Your task to perform on an android device: refresh tabs in the chrome app Image 0: 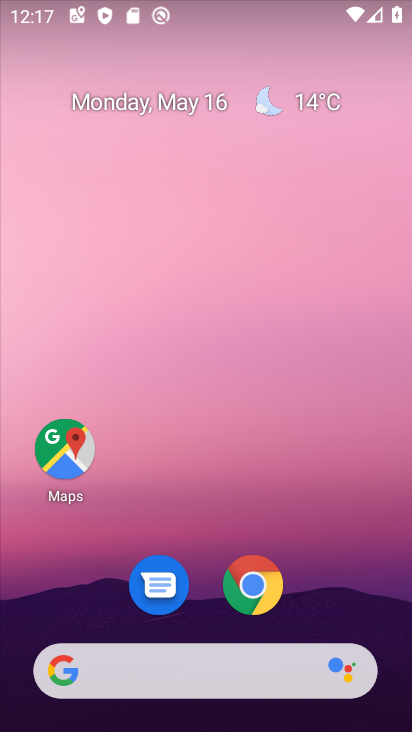
Step 0: click (261, 585)
Your task to perform on an android device: refresh tabs in the chrome app Image 1: 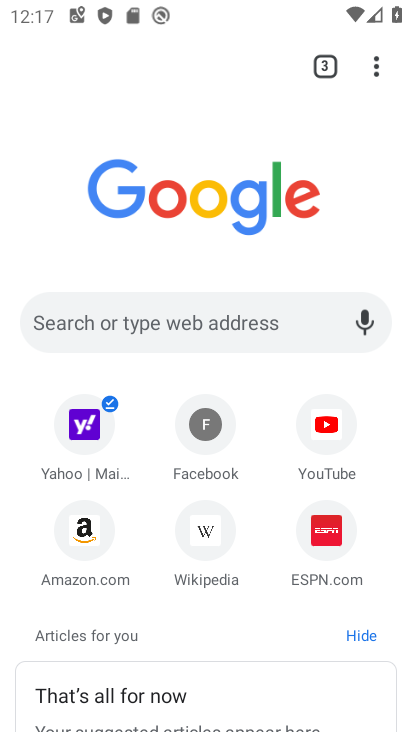
Step 1: click (375, 71)
Your task to perform on an android device: refresh tabs in the chrome app Image 2: 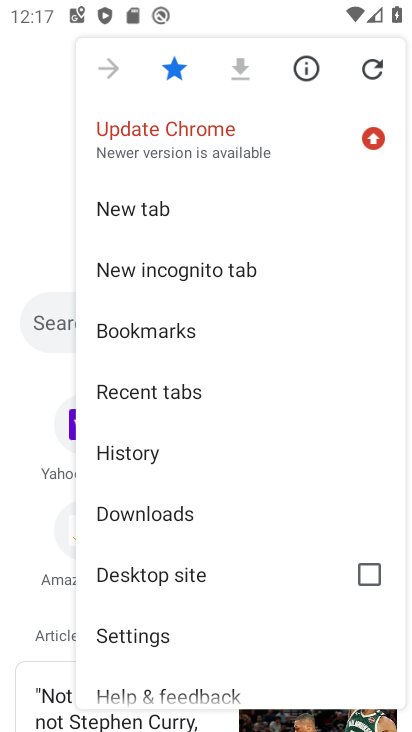
Step 2: click (237, 199)
Your task to perform on an android device: refresh tabs in the chrome app Image 3: 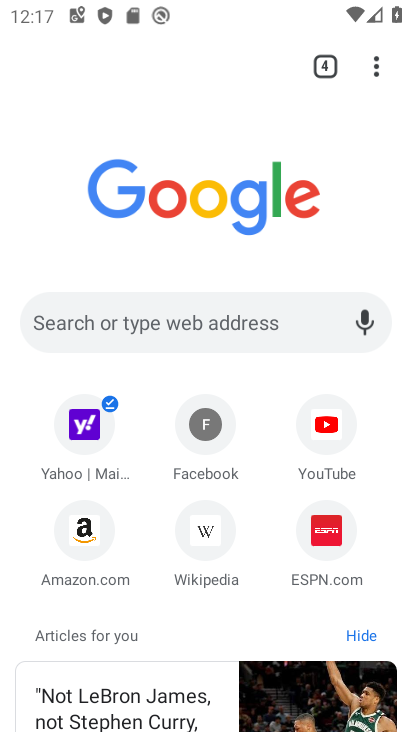
Step 3: click (379, 68)
Your task to perform on an android device: refresh tabs in the chrome app Image 4: 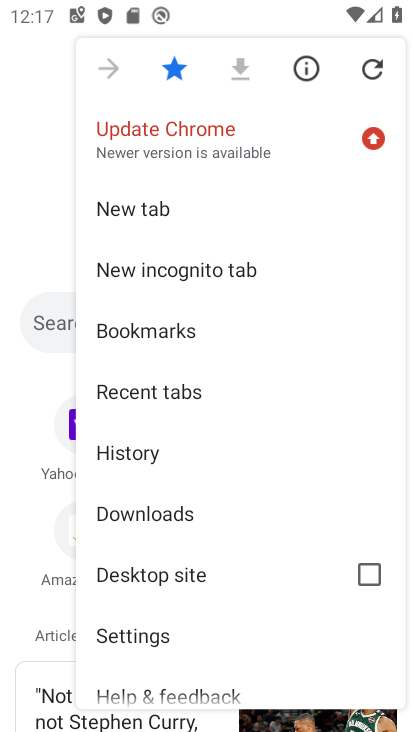
Step 4: click (369, 63)
Your task to perform on an android device: refresh tabs in the chrome app Image 5: 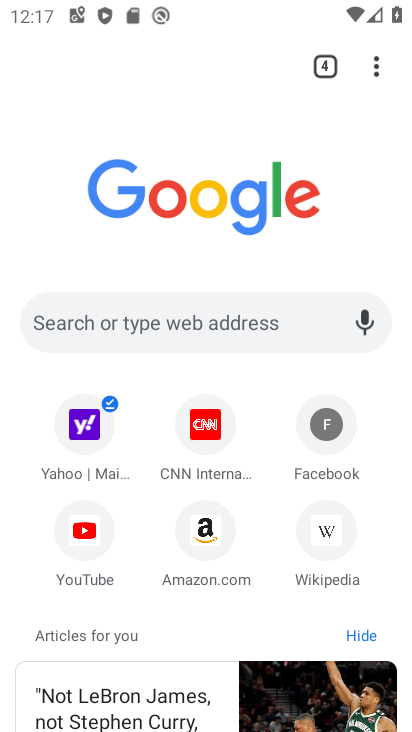
Step 5: task complete